Your task to perform on an android device: Go to Reddit.com Image 0: 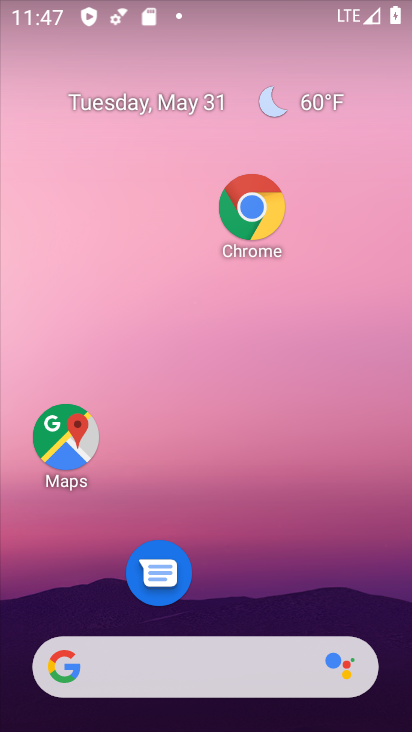
Step 0: click (225, 239)
Your task to perform on an android device: Go to Reddit.com Image 1: 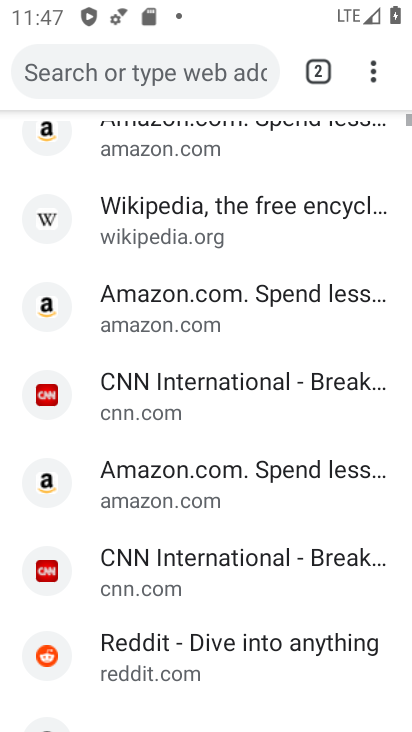
Step 1: click (321, 65)
Your task to perform on an android device: Go to Reddit.com Image 2: 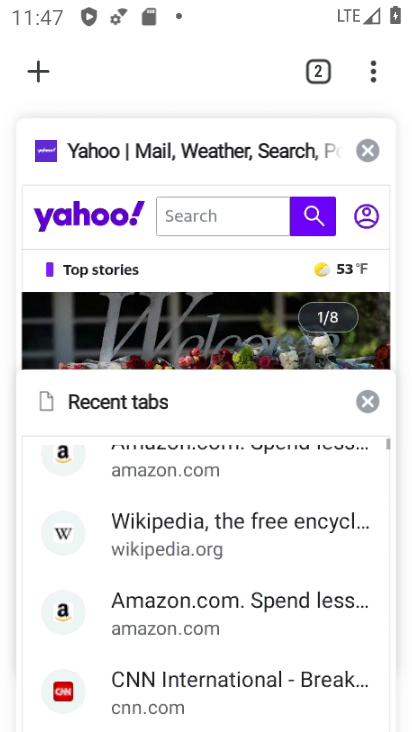
Step 2: click (47, 69)
Your task to perform on an android device: Go to Reddit.com Image 3: 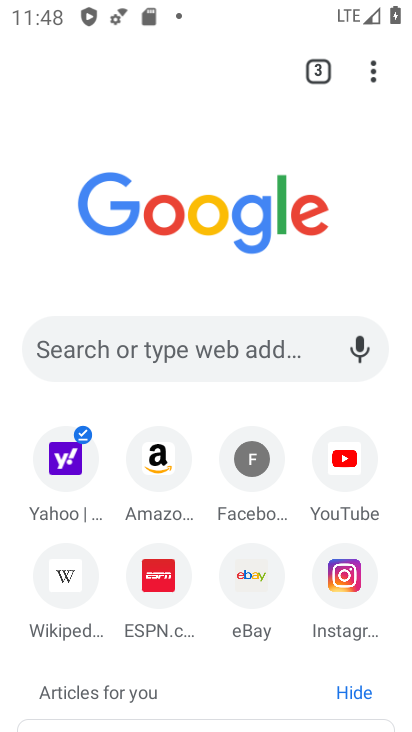
Step 3: click (175, 361)
Your task to perform on an android device: Go to Reddit.com Image 4: 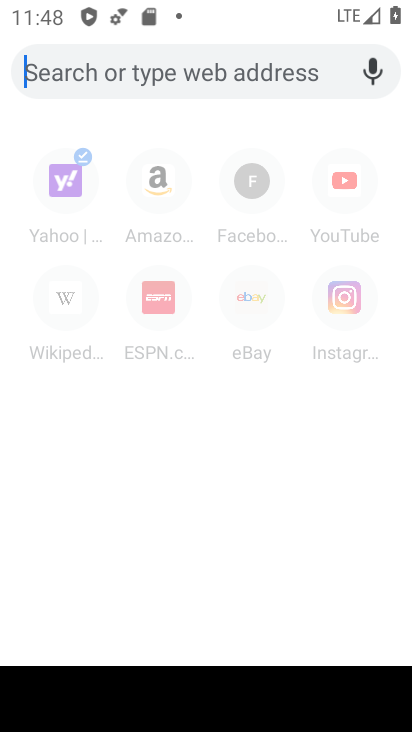
Step 4: type "Reddit.com"
Your task to perform on an android device: Go to Reddit.com Image 5: 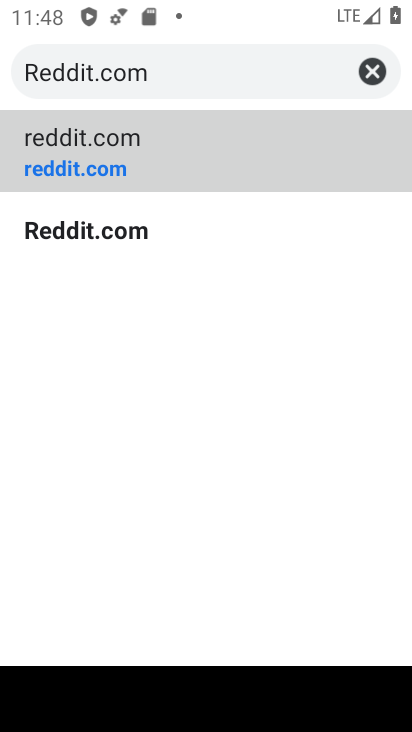
Step 5: click (107, 164)
Your task to perform on an android device: Go to Reddit.com Image 6: 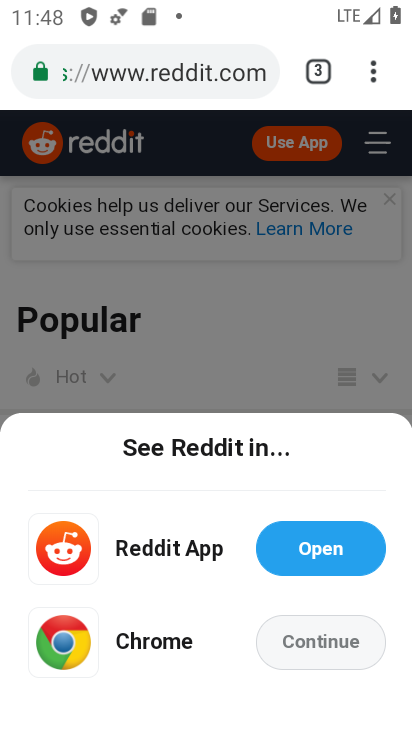
Step 6: click (319, 628)
Your task to perform on an android device: Go to Reddit.com Image 7: 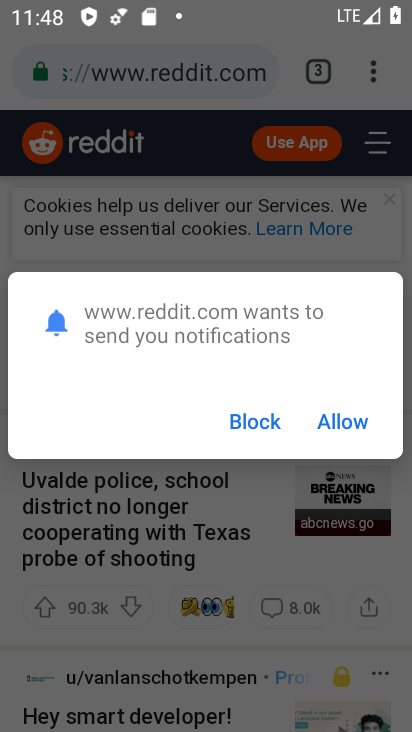
Step 7: click (357, 424)
Your task to perform on an android device: Go to Reddit.com Image 8: 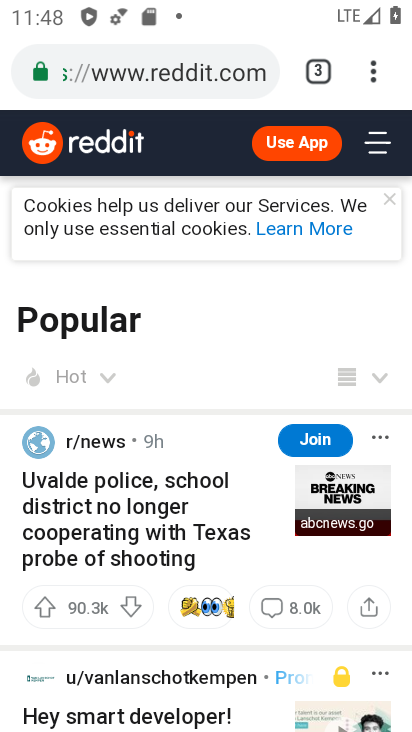
Step 8: task complete